Your task to perform on an android device: turn off data saver in the chrome app Image 0: 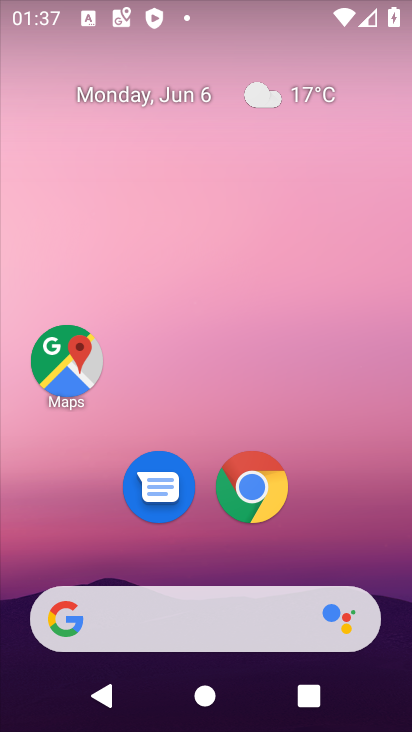
Step 0: click (259, 488)
Your task to perform on an android device: turn off data saver in the chrome app Image 1: 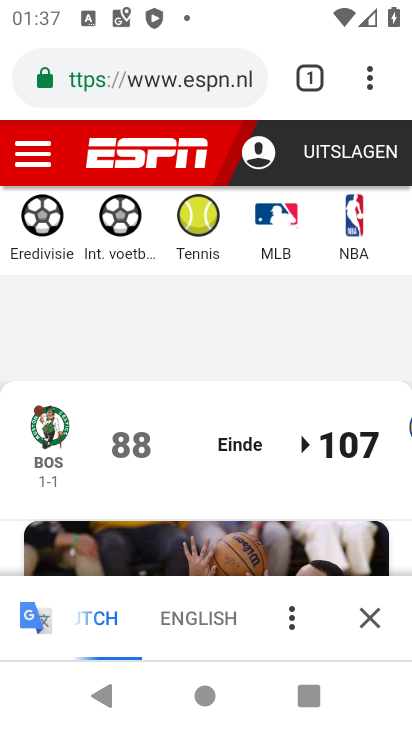
Step 1: click (367, 87)
Your task to perform on an android device: turn off data saver in the chrome app Image 2: 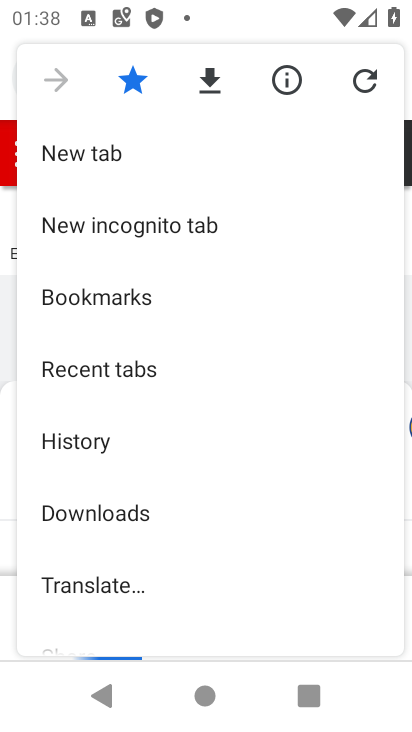
Step 2: drag from (188, 554) to (211, 190)
Your task to perform on an android device: turn off data saver in the chrome app Image 3: 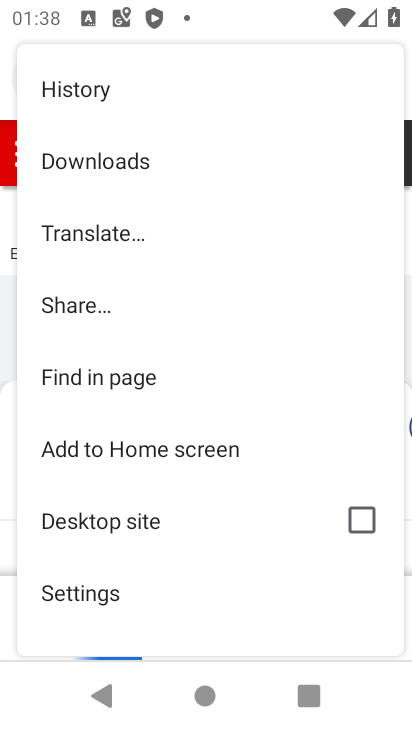
Step 3: drag from (199, 577) to (239, 116)
Your task to perform on an android device: turn off data saver in the chrome app Image 4: 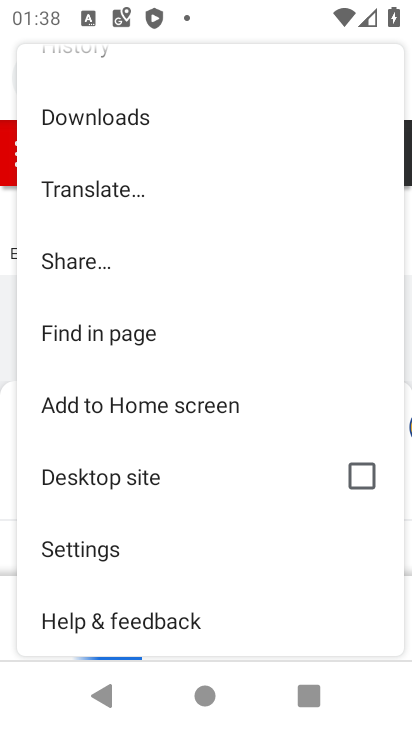
Step 4: click (103, 547)
Your task to perform on an android device: turn off data saver in the chrome app Image 5: 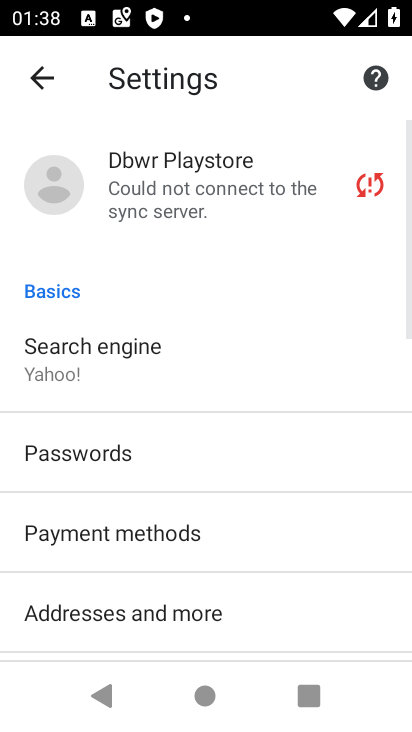
Step 5: drag from (265, 597) to (236, 128)
Your task to perform on an android device: turn off data saver in the chrome app Image 6: 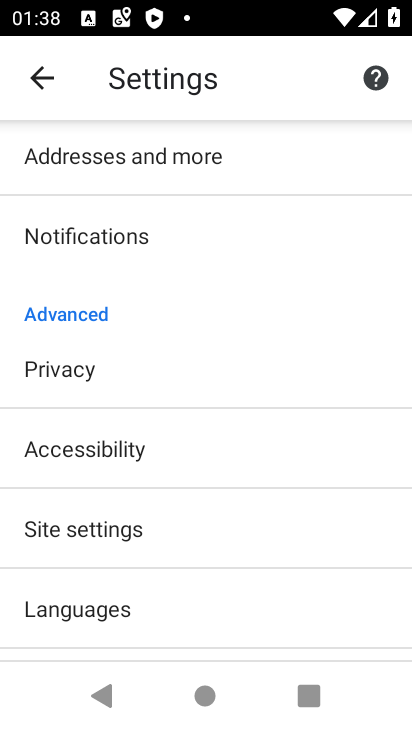
Step 6: drag from (253, 592) to (233, 305)
Your task to perform on an android device: turn off data saver in the chrome app Image 7: 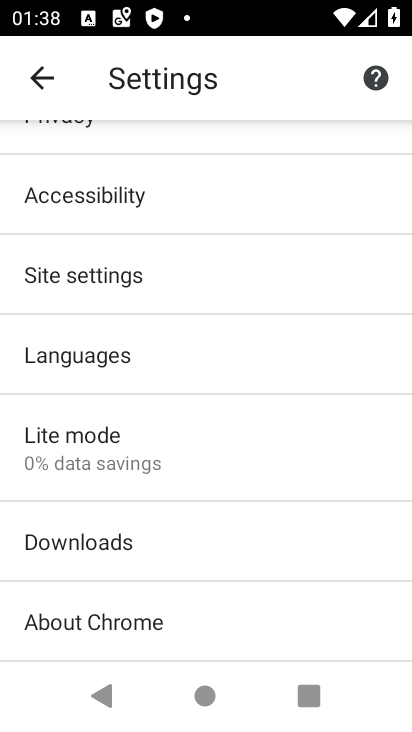
Step 7: click (57, 451)
Your task to perform on an android device: turn off data saver in the chrome app Image 8: 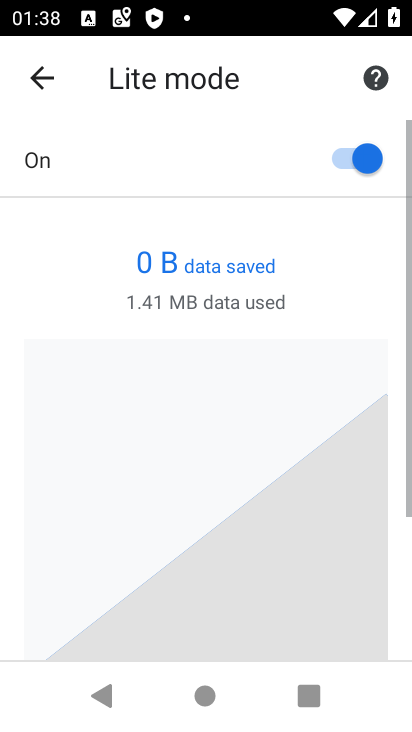
Step 8: click (338, 155)
Your task to perform on an android device: turn off data saver in the chrome app Image 9: 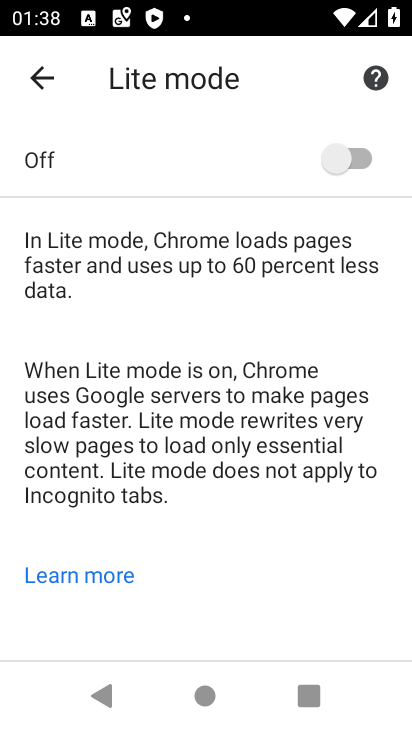
Step 9: task complete